Your task to perform on an android device: change timer sound Image 0: 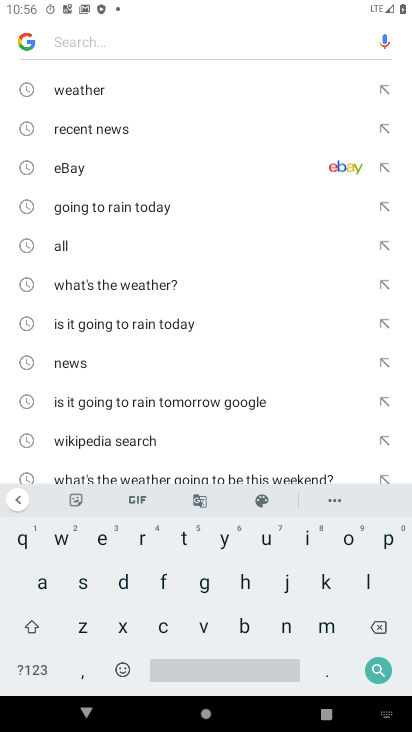
Step 0: press home button
Your task to perform on an android device: change timer sound Image 1: 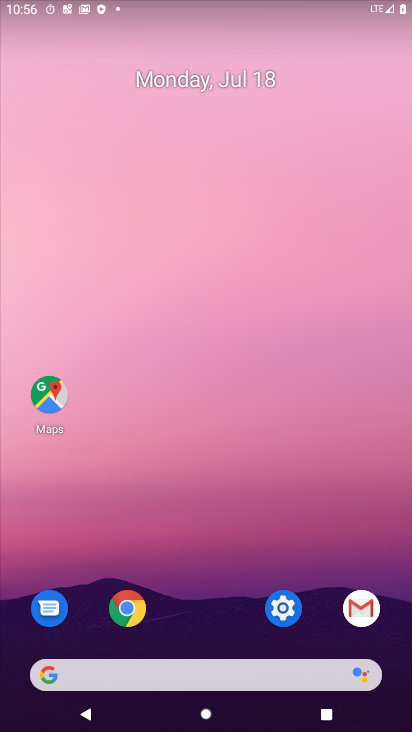
Step 1: drag from (298, 632) to (242, 120)
Your task to perform on an android device: change timer sound Image 2: 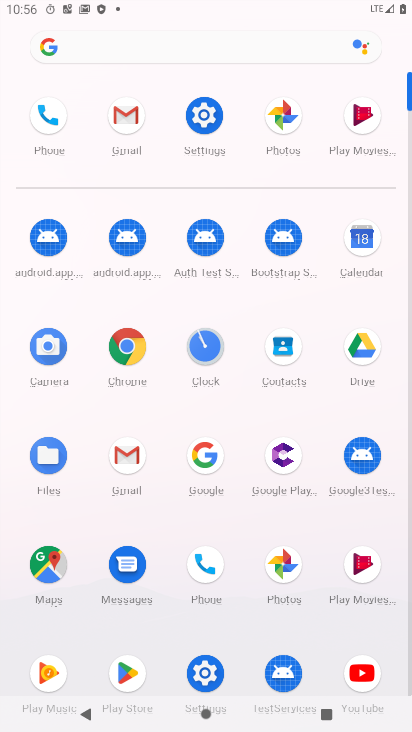
Step 2: click (192, 358)
Your task to perform on an android device: change timer sound Image 3: 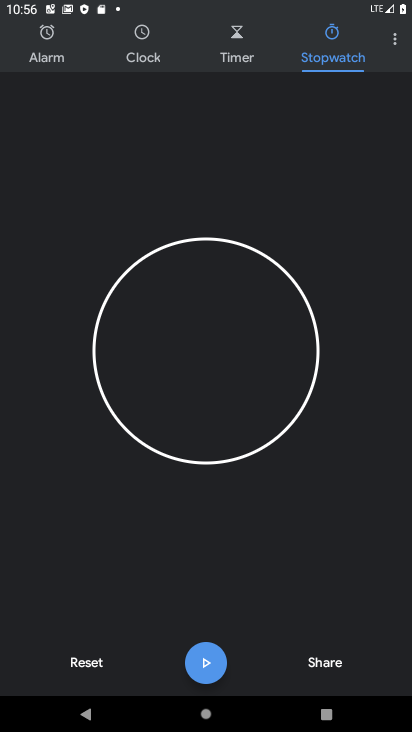
Step 3: click (395, 50)
Your task to perform on an android device: change timer sound Image 4: 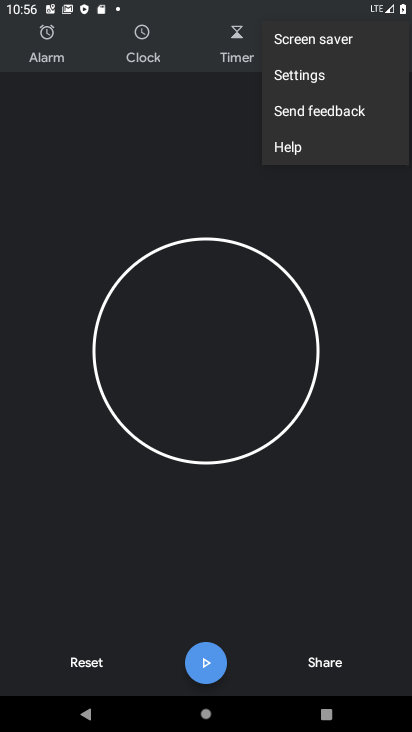
Step 4: click (313, 80)
Your task to perform on an android device: change timer sound Image 5: 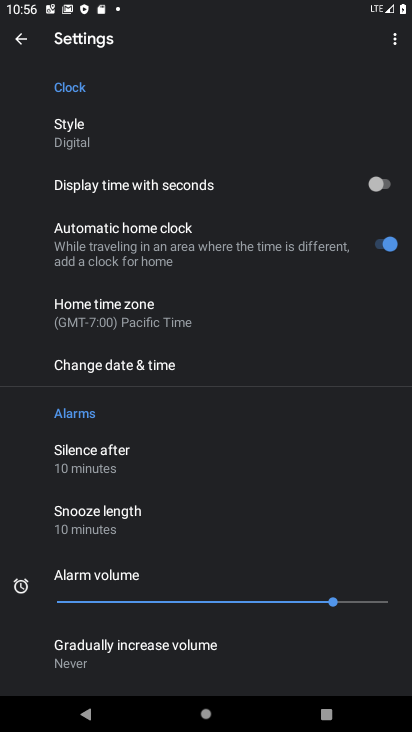
Step 5: drag from (148, 614) to (190, 335)
Your task to perform on an android device: change timer sound Image 6: 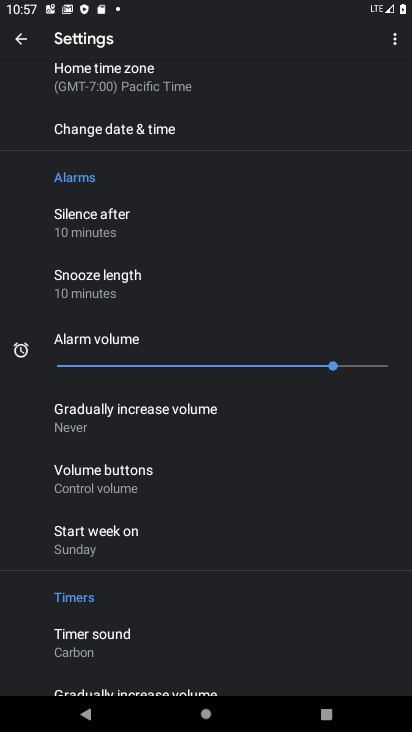
Step 6: click (137, 641)
Your task to perform on an android device: change timer sound Image 7: 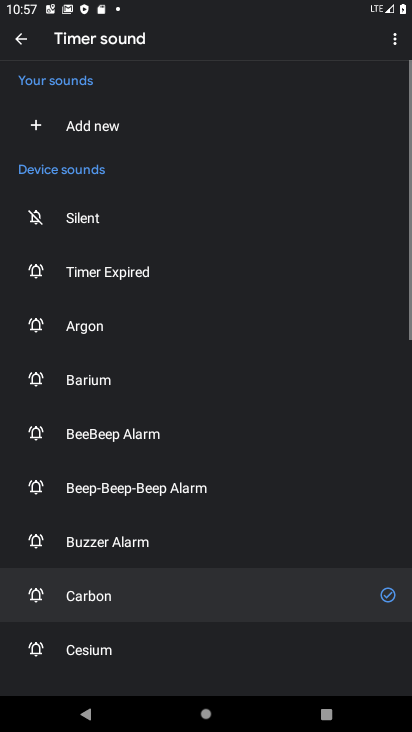
Step 7: click (116, 440)
Your task to perform on an android device: change timer sound Image 8: 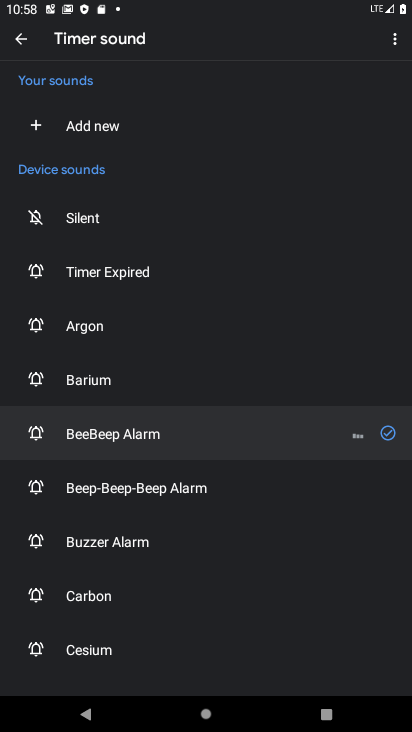
Step 8: task complete